Your task to perform on an android device: set an alarm Image 0: 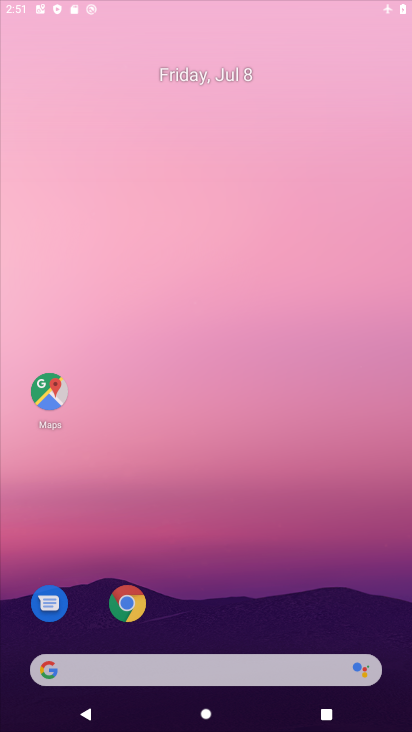
Step 0: click (328, 0)
Your task to perform on an android device: set an alarm Image 1: 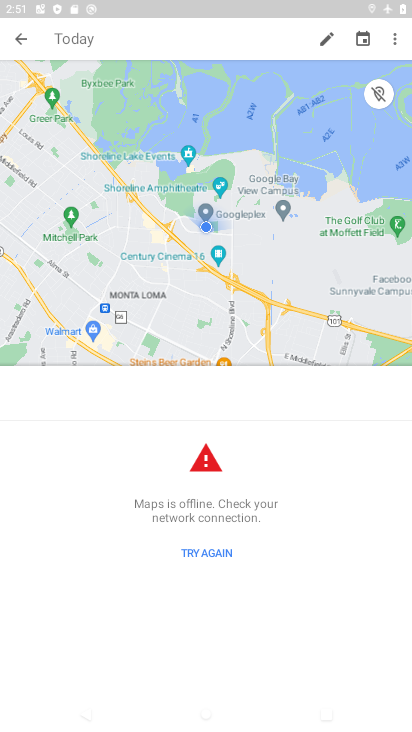
Step 1: press home button
Your task to perform on an android device: set an alarm Image 2: 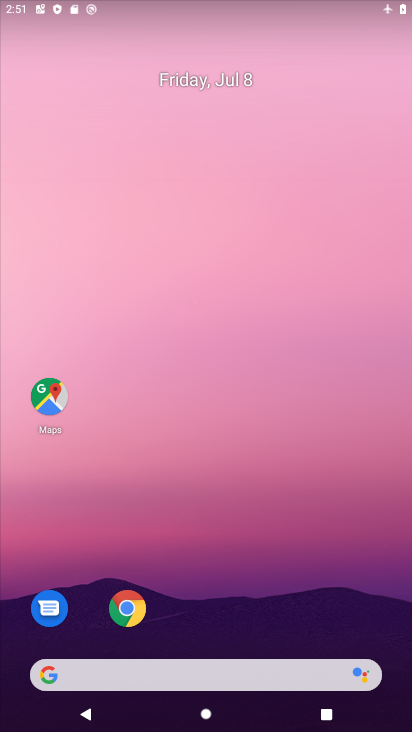
Step 2: drag from (225, 688) to (147, 3)
Your task to perform on an android device: set an alarm Image 3: 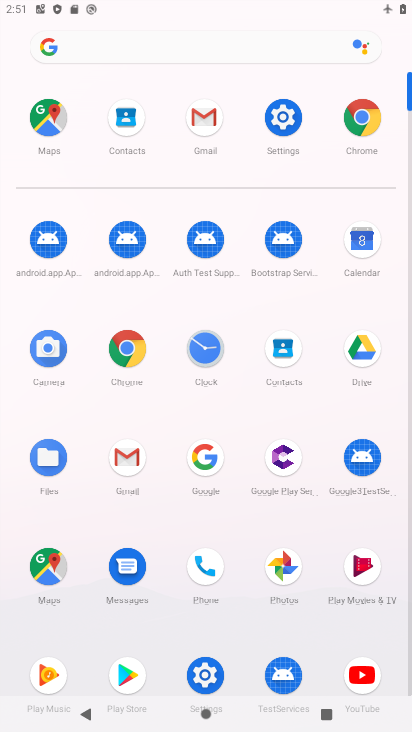
Step 3: click (212, 357)
Your task to perform on an android device: set an alarm Image 4: 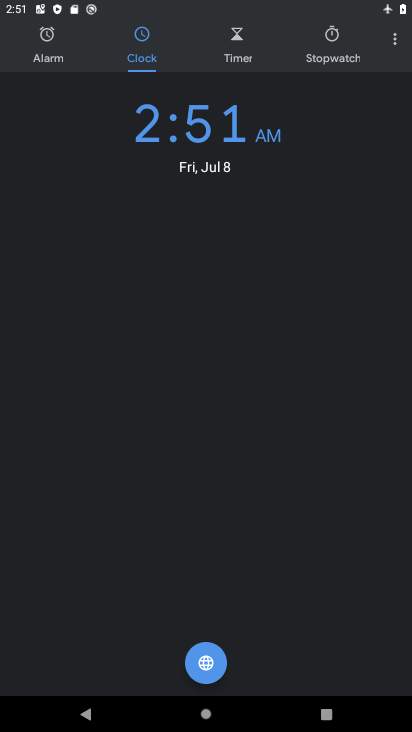
Step 4: click (60, 51)
Your task to perform on an android device: set an alarm Image 5: 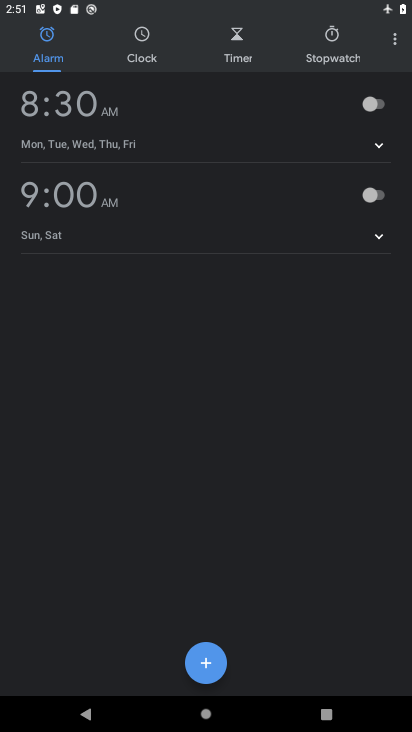
Step 5: click (385, 101)
Your task to perform on an android device: set an alarm Image 6: 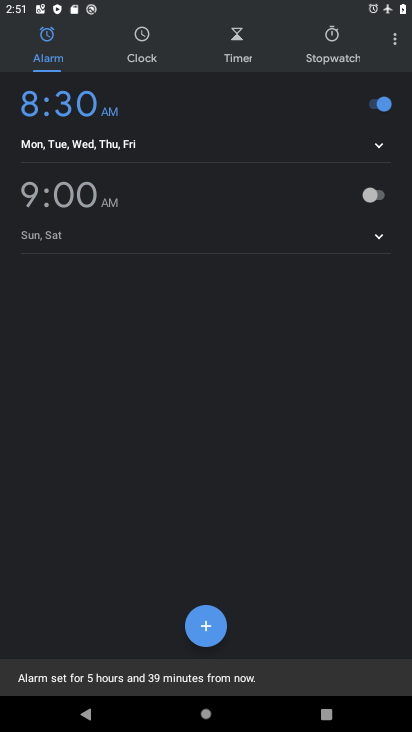
Step 6: task complete